Your task to perform on an android device: turn off airplane mode Image 0: 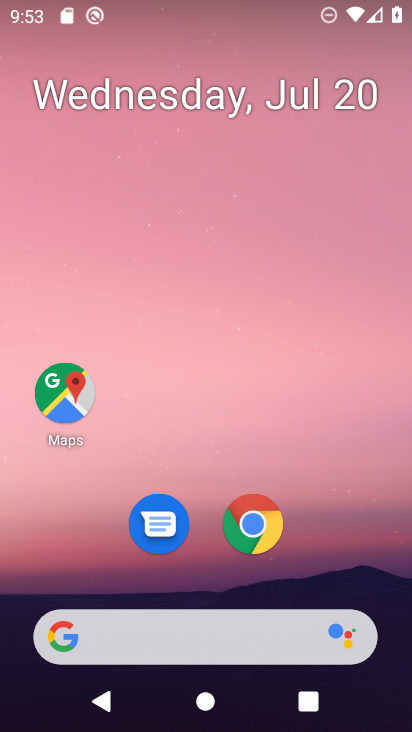
Step 0: press home button
Your task to perform on an android device: turn off airplane mode Image 1: 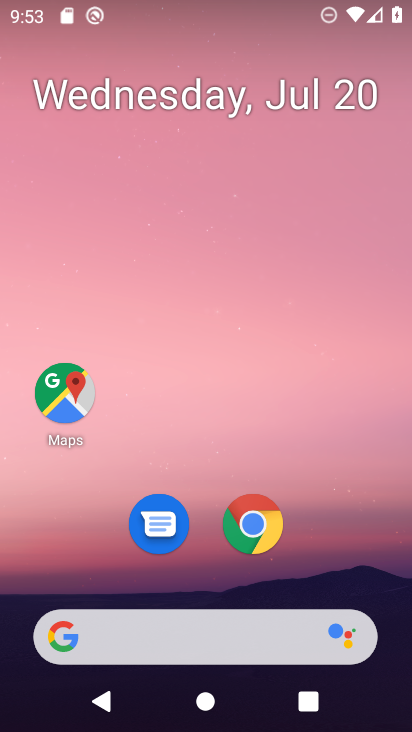
Step 1: drag from (150, 637) to (328, 3)
Your task to perform on an android device: turn off airplane mode Image 2: 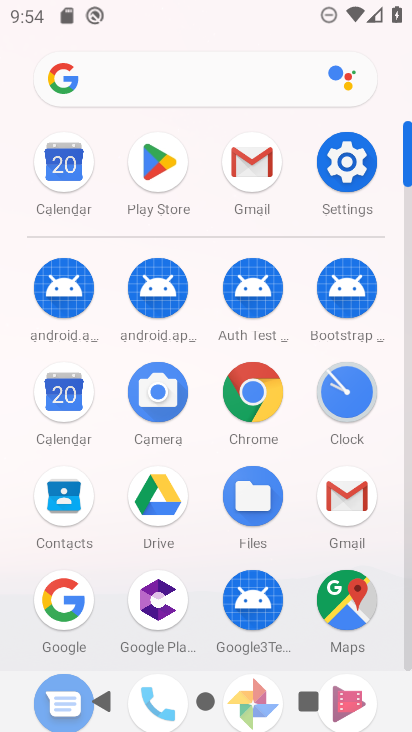
Step 2: click (358, 173)
Your task to perform on an android device: turn off airplane mode Image 3: 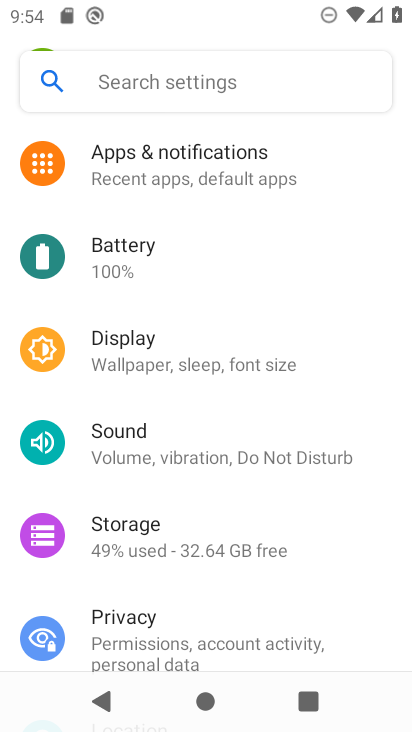
Step 3: drag from (314, 150) to (298, 576)
Your task to perform on an android device: turn off airplane mode Image 4: 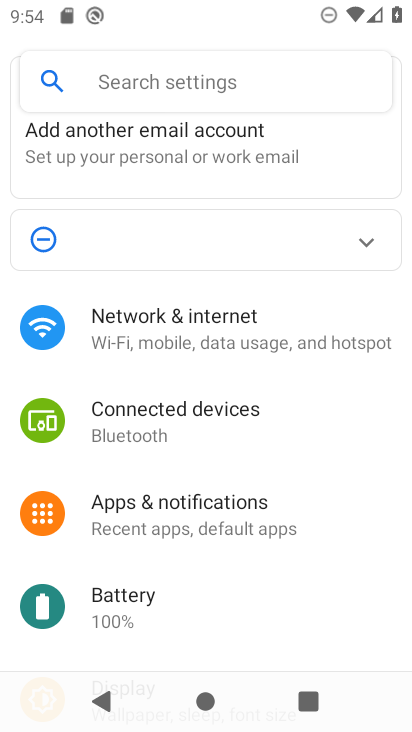
Step 4: click (192, 338)
Your task to perform on an android device: turn off airplane mode Image 5: 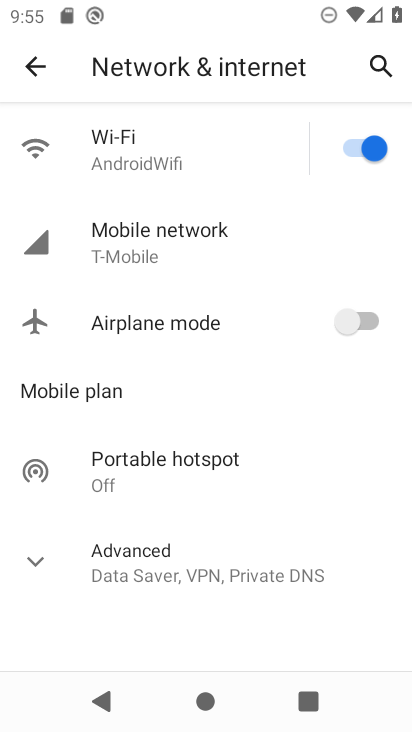
Step 5: task complete